Your task to perform on an android device: make emails show in primary in the gmail app Image 0: 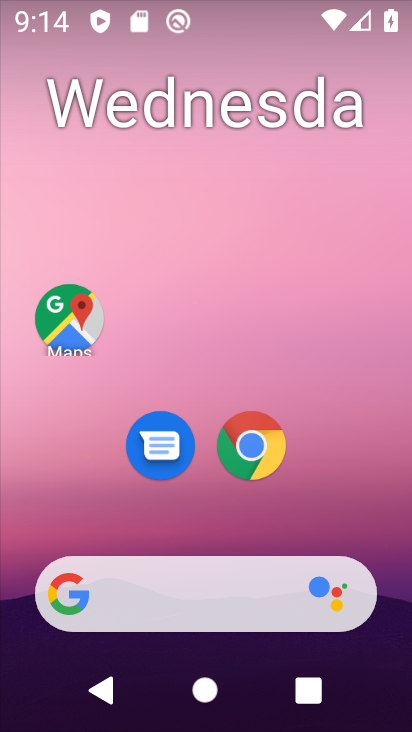
Step 0: drag from (185, 499) to (315, 4)
Your task to perform on an android device: make emails show in primary in the gmail app Image 1: 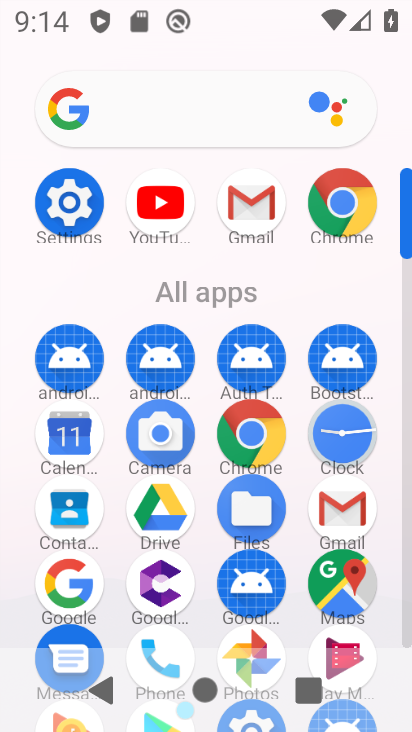
Step 1: click (245, 200)
Your task to perform on an android device: make emails show in primary in the gmail app Image 2: 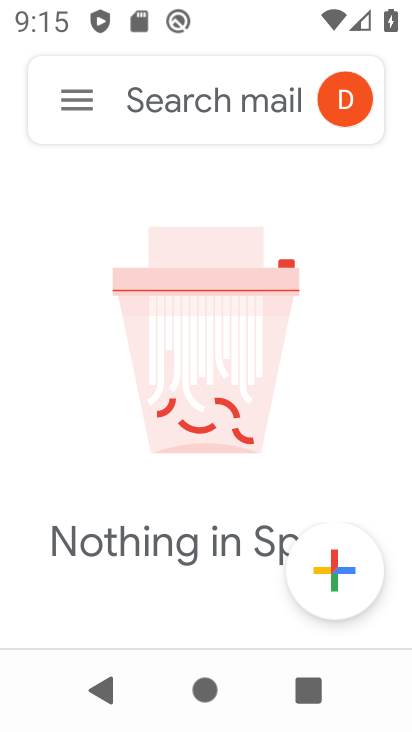
Step 2: click (79, 87)
Your task to perform on an android device: make emails show in primary in the gmail app Image 3: 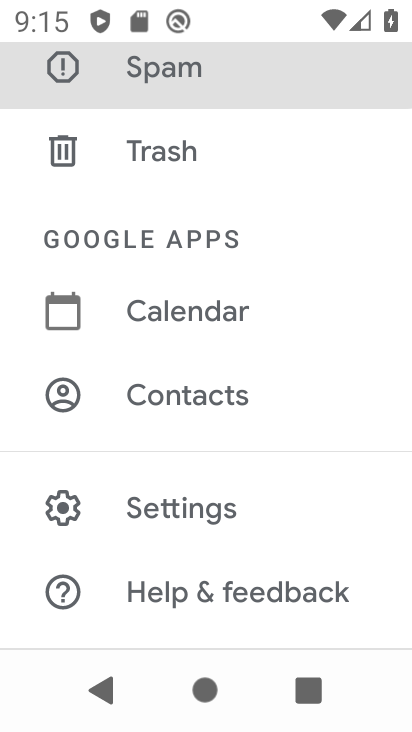
Step 3: click (189, 513)
Your task to perform on an android device: make emails show in primary in the gmail app Image 4: 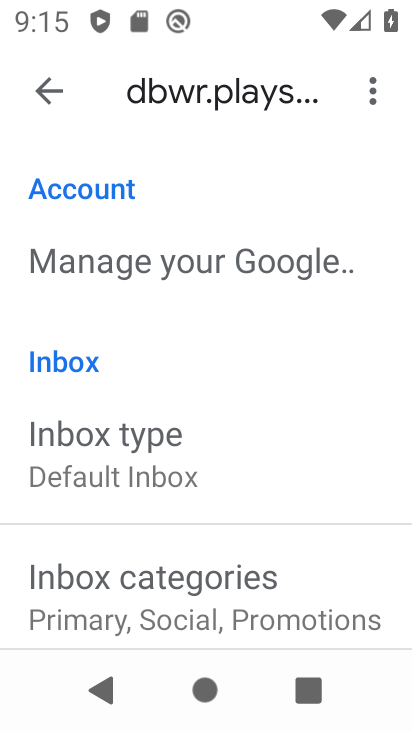
Step 4: click (160, 601)
Your task to perform on an android device: make emails show in primary in the gmail app Image 5: 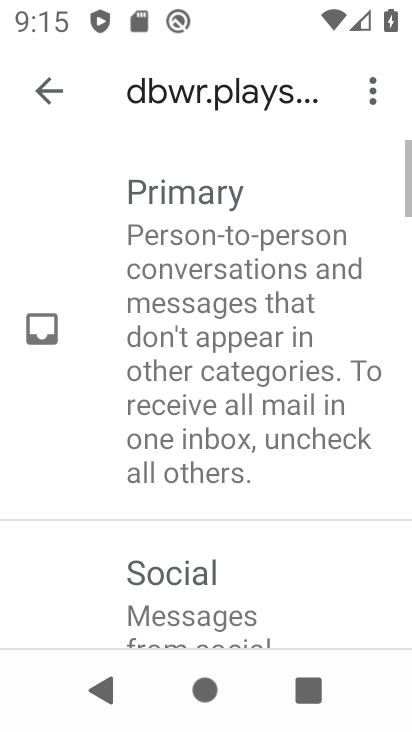
Step 5: drag from (177, 537) to (288, 46)
Your task to perform on an android device: make emails show in primary in the gmail app Image 6: 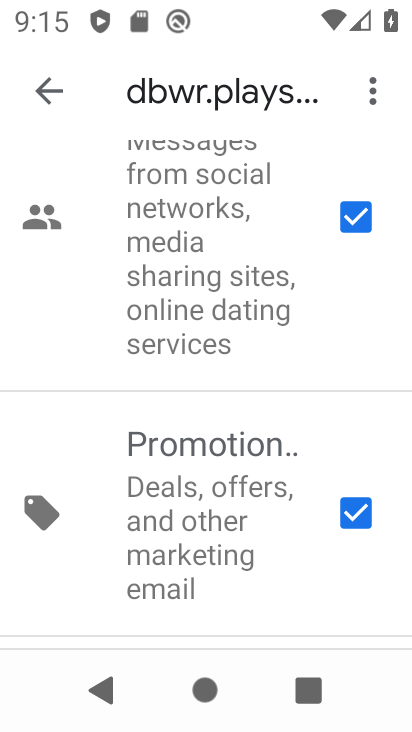
Step 6: drag from (201, 609) to (236, 345)
Your task to perform on an android device: make emails show in primary in the gmail app Image 7: 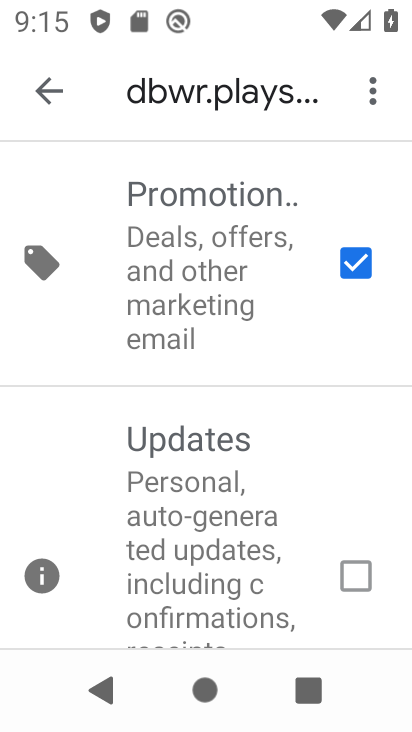
Step 7: drag from (199, 547) to (270, 156)
Your task to perform on an android device: make emails show in primary in the gmail app Image 8: 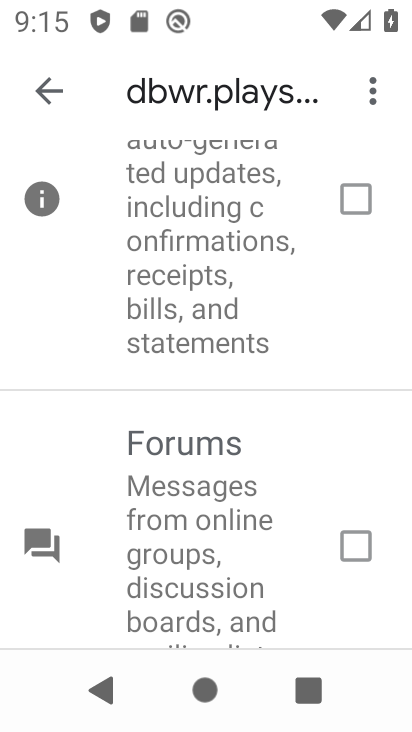
Step 8: drag from (223, 540) to (274, 139)
Your task to perform on an android device: make emails show in primary in the gmail app Image 9: 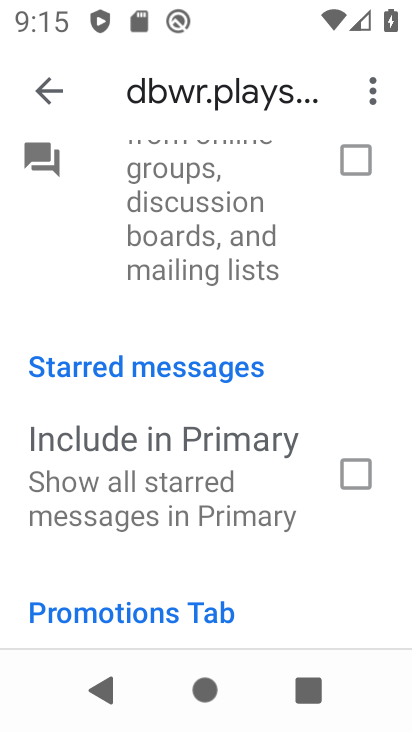
Step 9: click (351, 477)
Your task to perform on an android device: make emails show in primary in the gmail app Image 10: 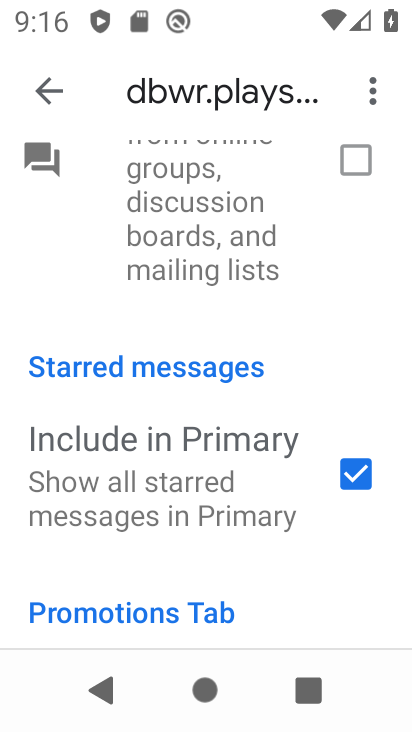
Step 10: task complete